Your task to perform on an android device: Open Chrome and go to settings Image 0: 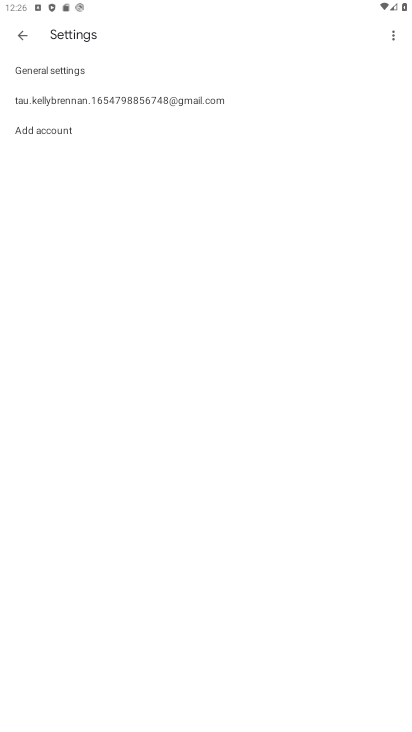
Step 0: press home button
Your task to perform on an android device: Open Chrome and go to settings Image 1: 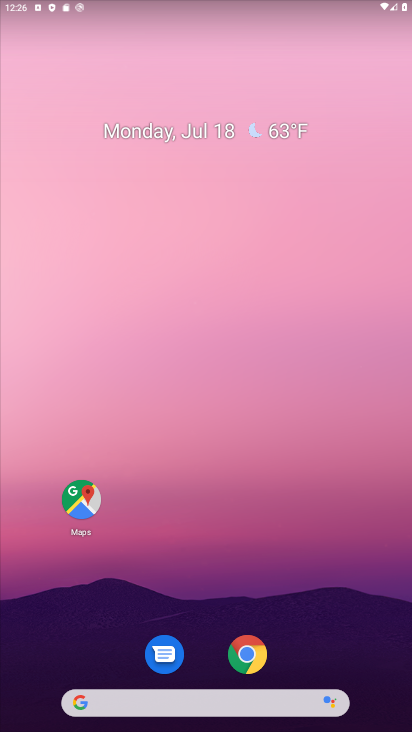
Step 1: click (258, 647)
Your task to perform on an android device: Open Chrome and go to settings Image 2: 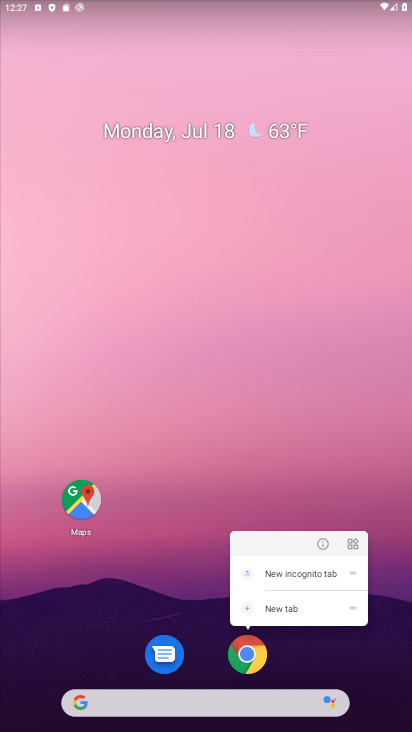
Step 2: click (245, 655)
Your task to perform on an android device: Open Chrome and go to settings Image 3: 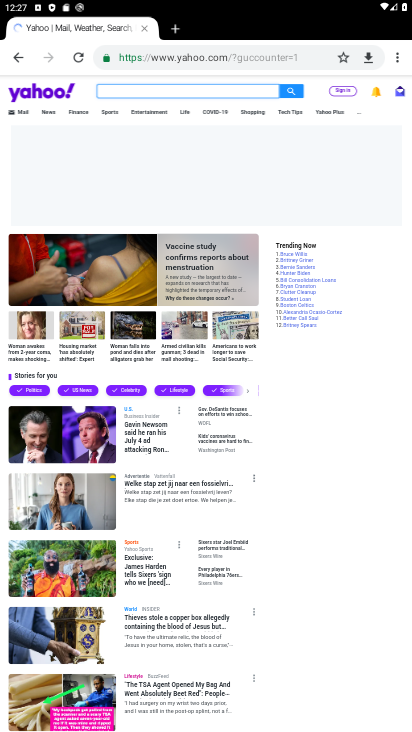
Step 3: click (392, 52)
Your task to perform on an android device: Open Chrome and go to settings Image 4: 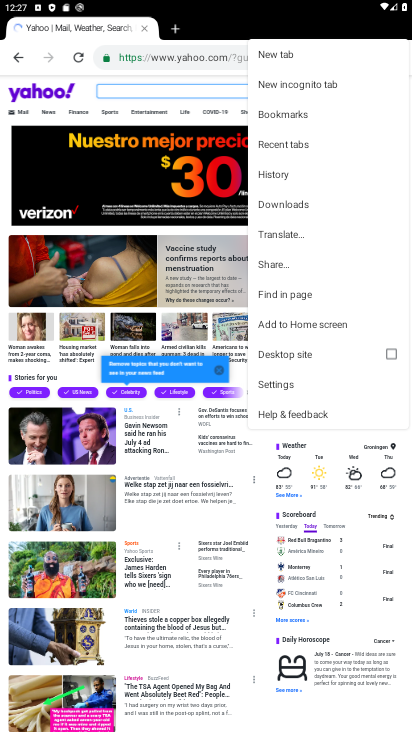
Step 4: click (301, 385)
Your task to perform on an android device: Open Chrome and go to settings Image 5: 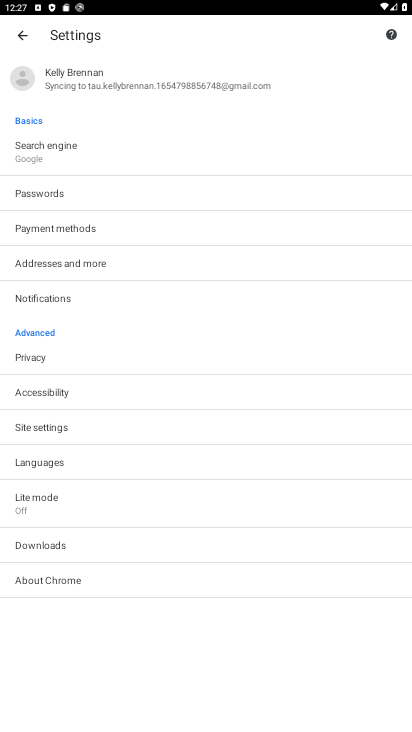
Step 5: task complete